Your task to perform on an android device: choose inbox layout in the gmail app Image 0: 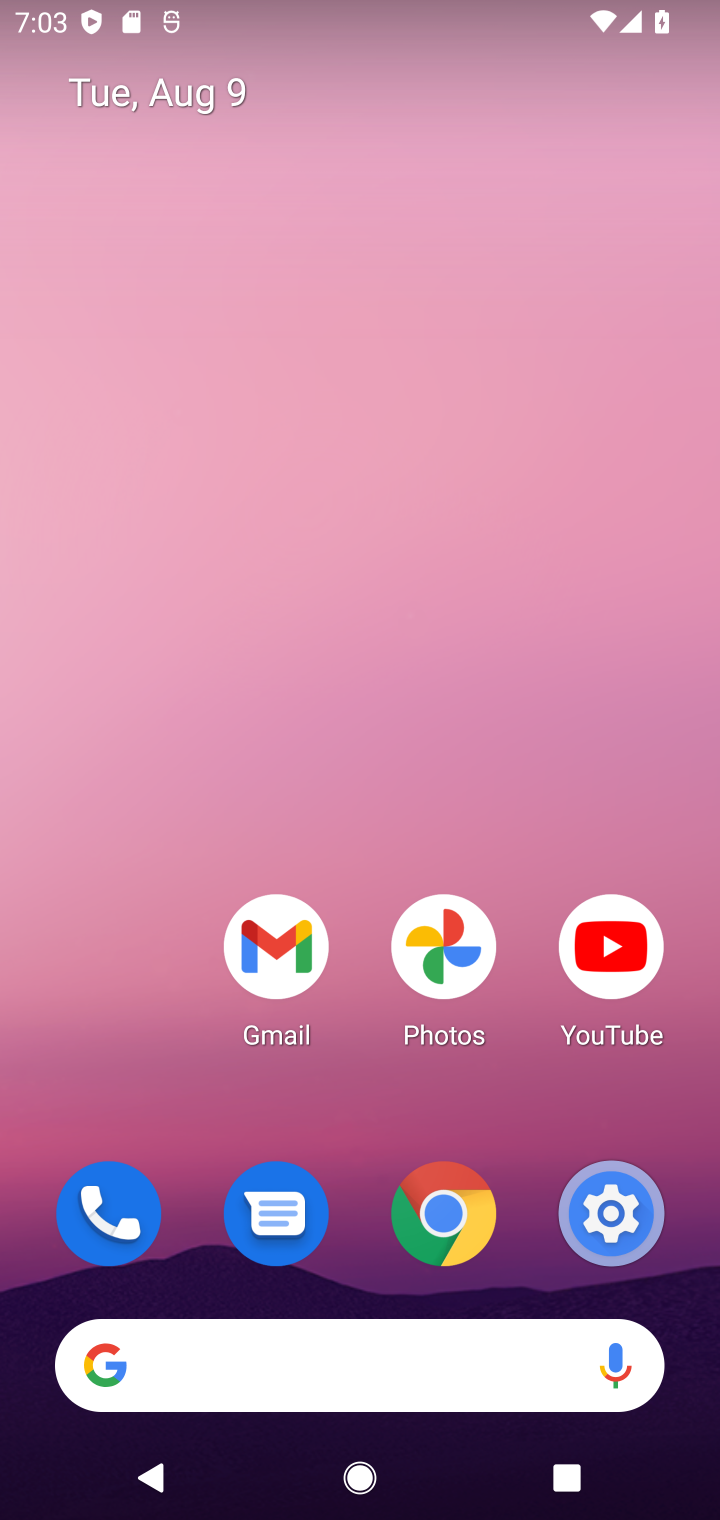
Step 0: drag from (342, 1292) to (376, 218)
Your task to perform on an android device: choose inbox layout in the gmail app Image 1: 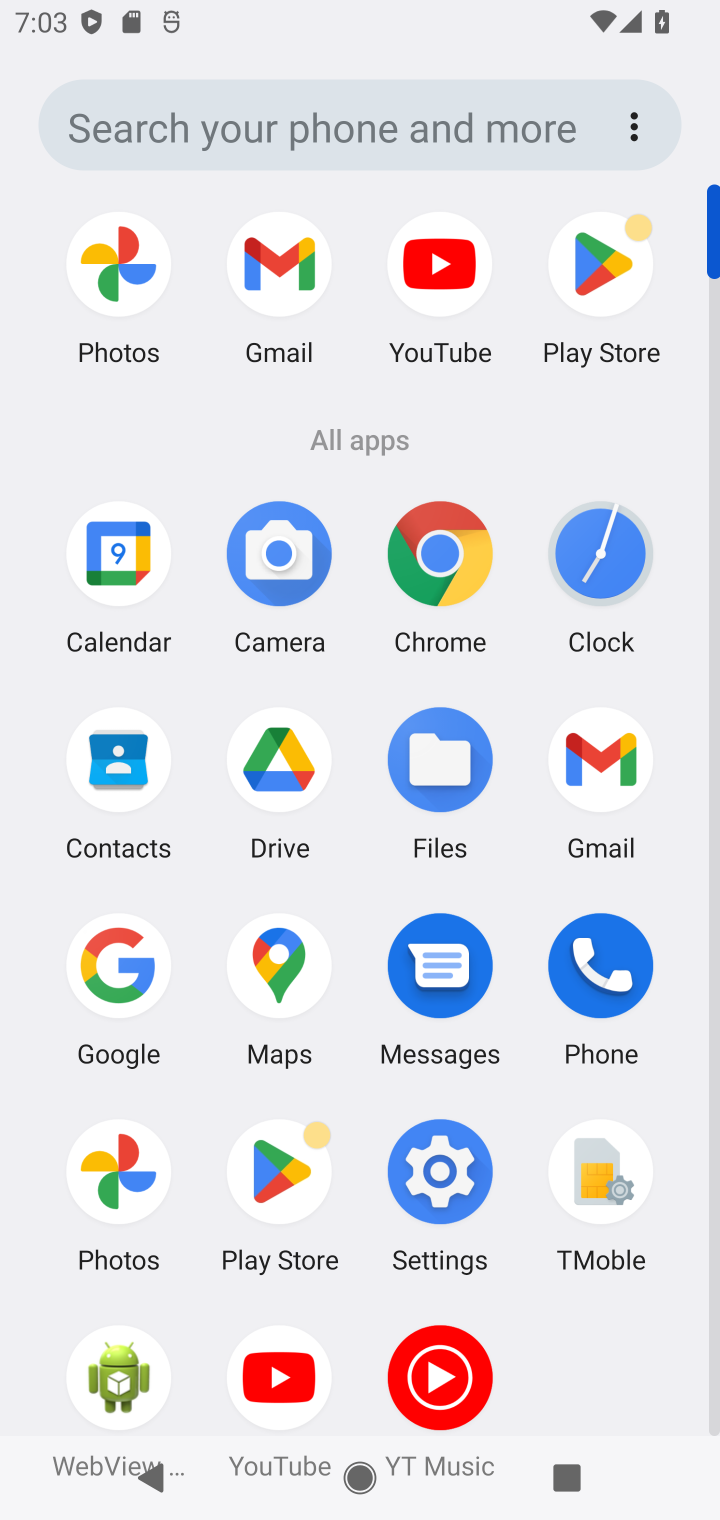
Step 1: click (630, 759)
Your task to perform on an android device: choose inbox layout in the gmail app Image 2: 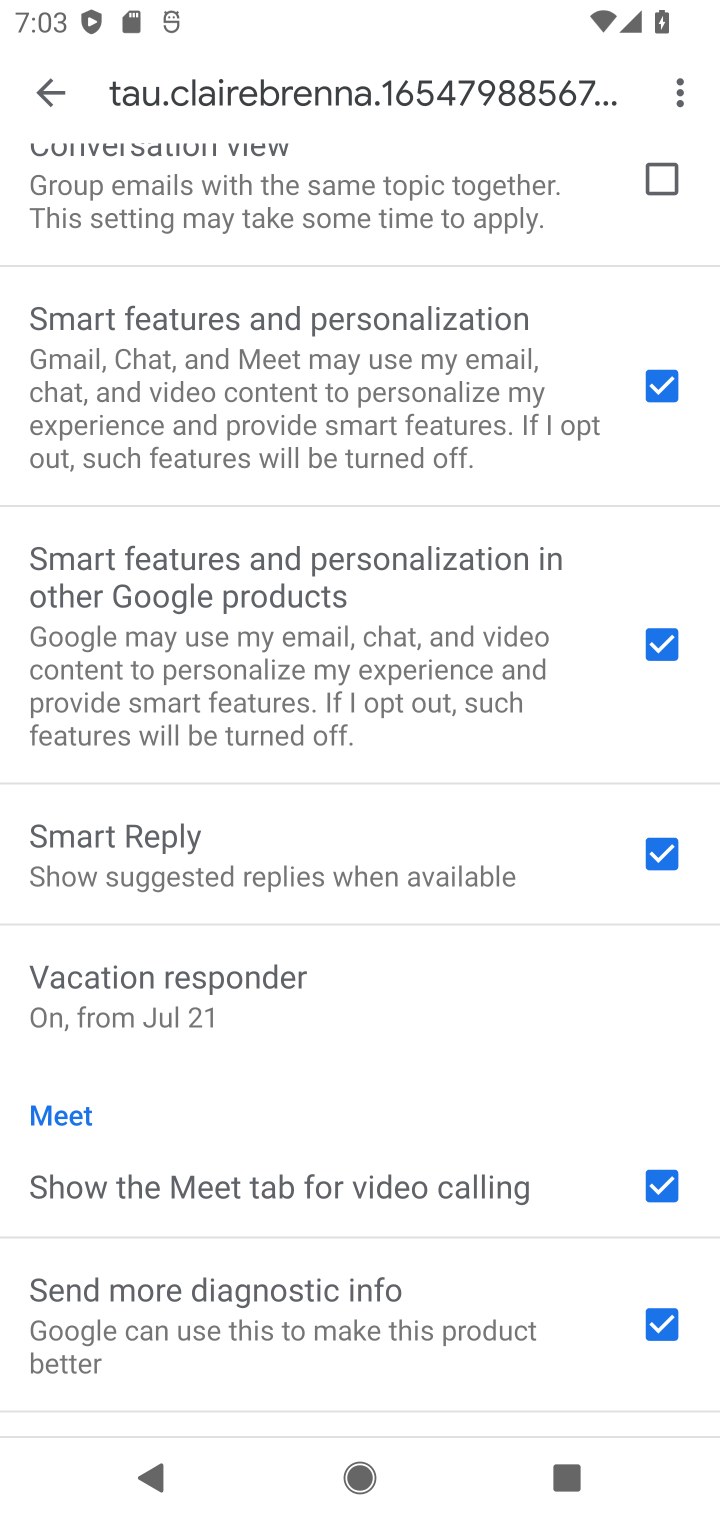
Step 2: click (33, 93)
Your task to perform on an android device: choose inbox layout in the gmail app Image 3: 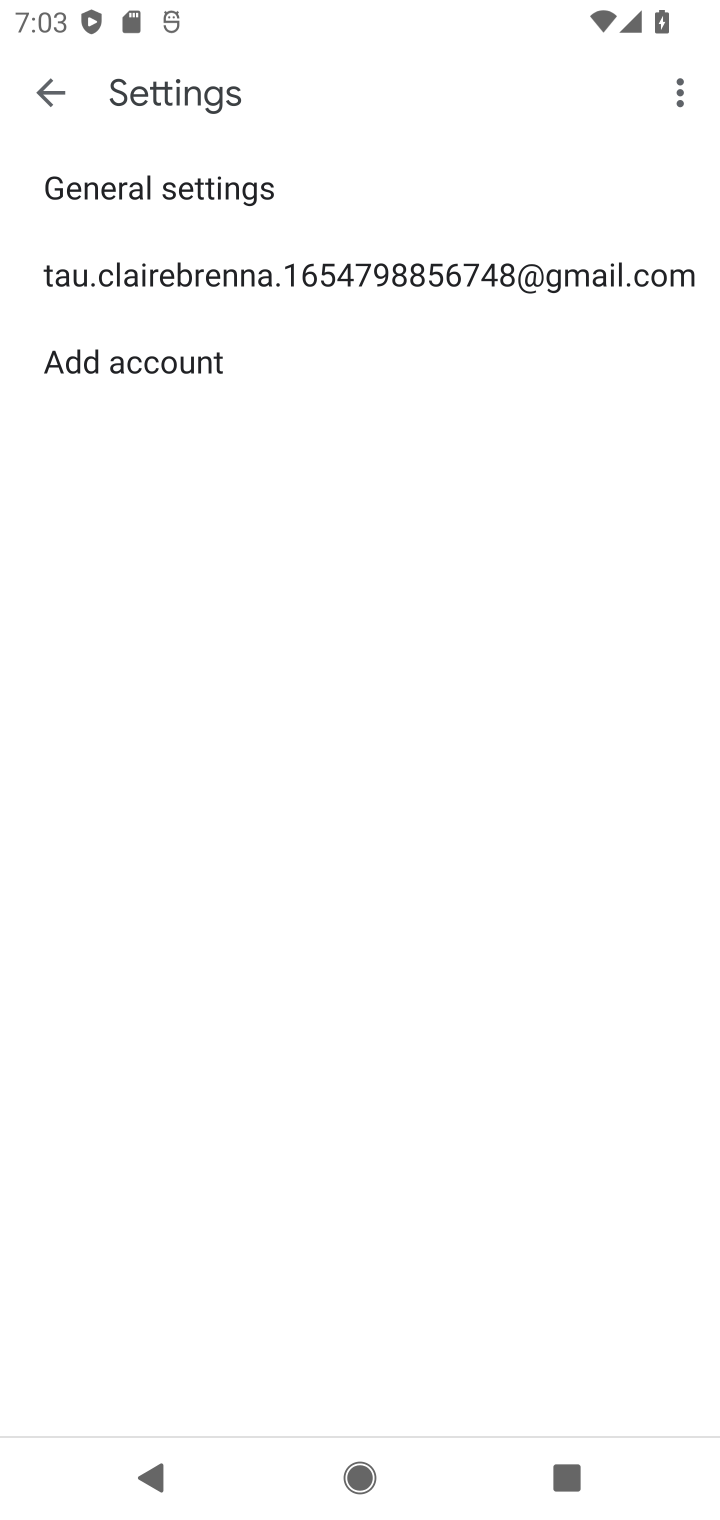
Step 3: click (151, 272)
Your task to perform on an android device: choose inbox layout in the gmail app Image 4: 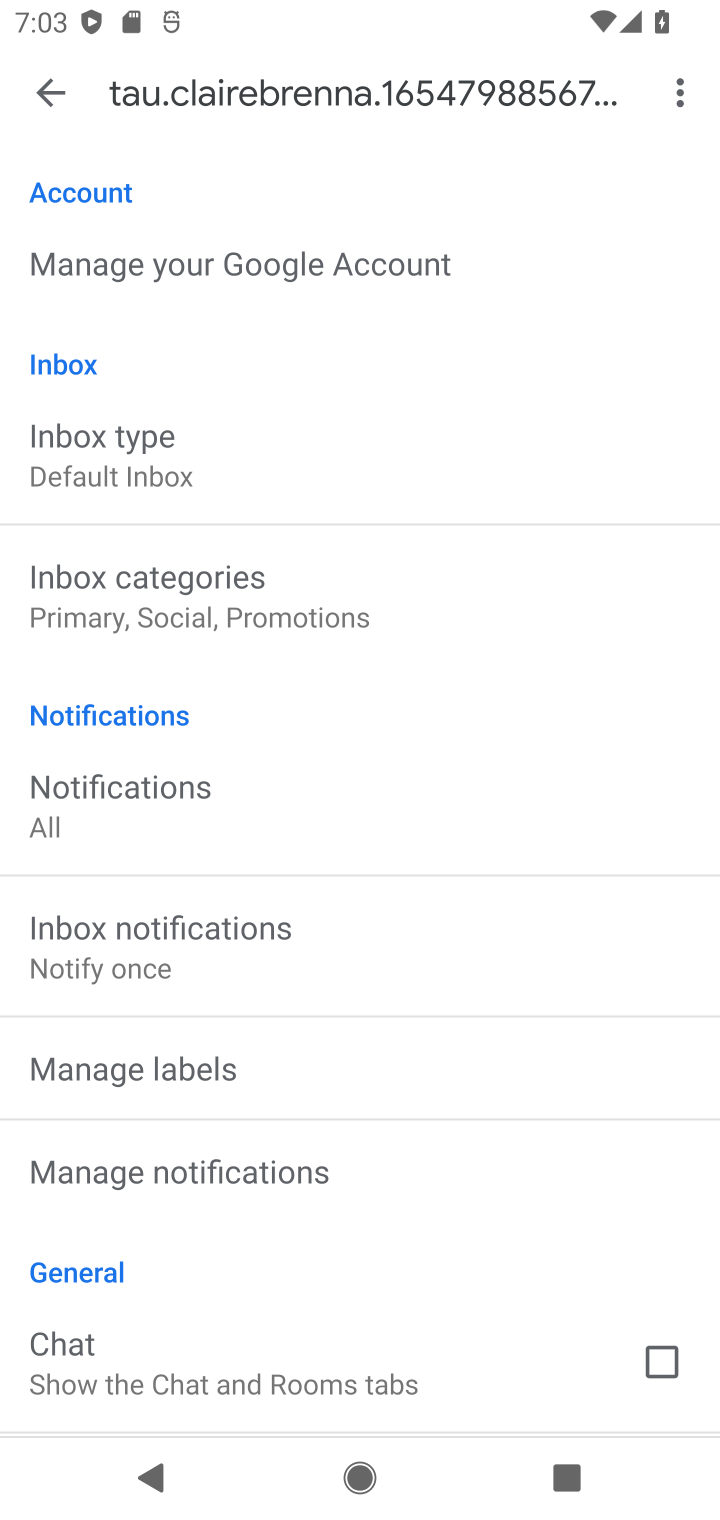
Step 4: click (201, 492)
Your task to perform on an android device: choose inbox layout in the gmail app Image 5: 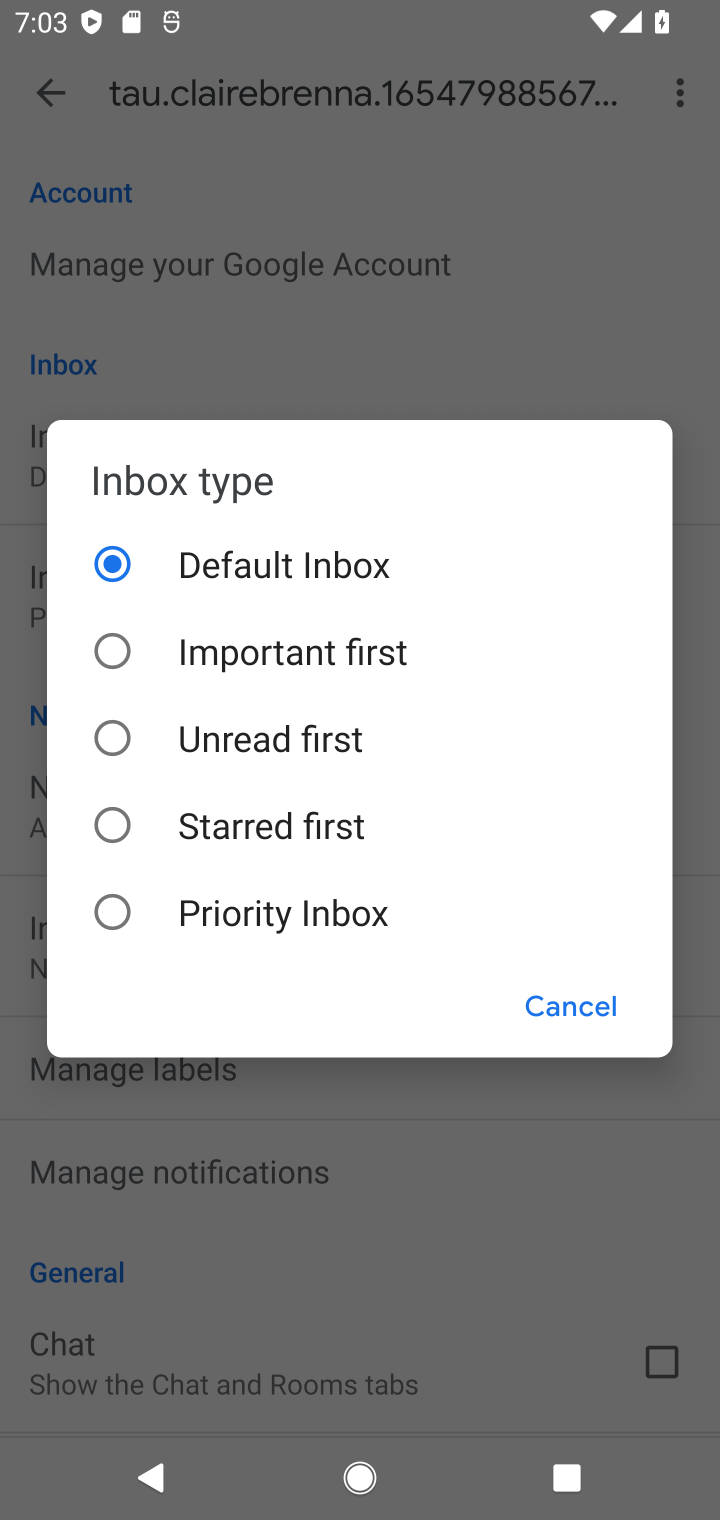
Step 5: click (212, 890)
Your task to perform on an android device: choose inbox layout in the gmail app Image 6: 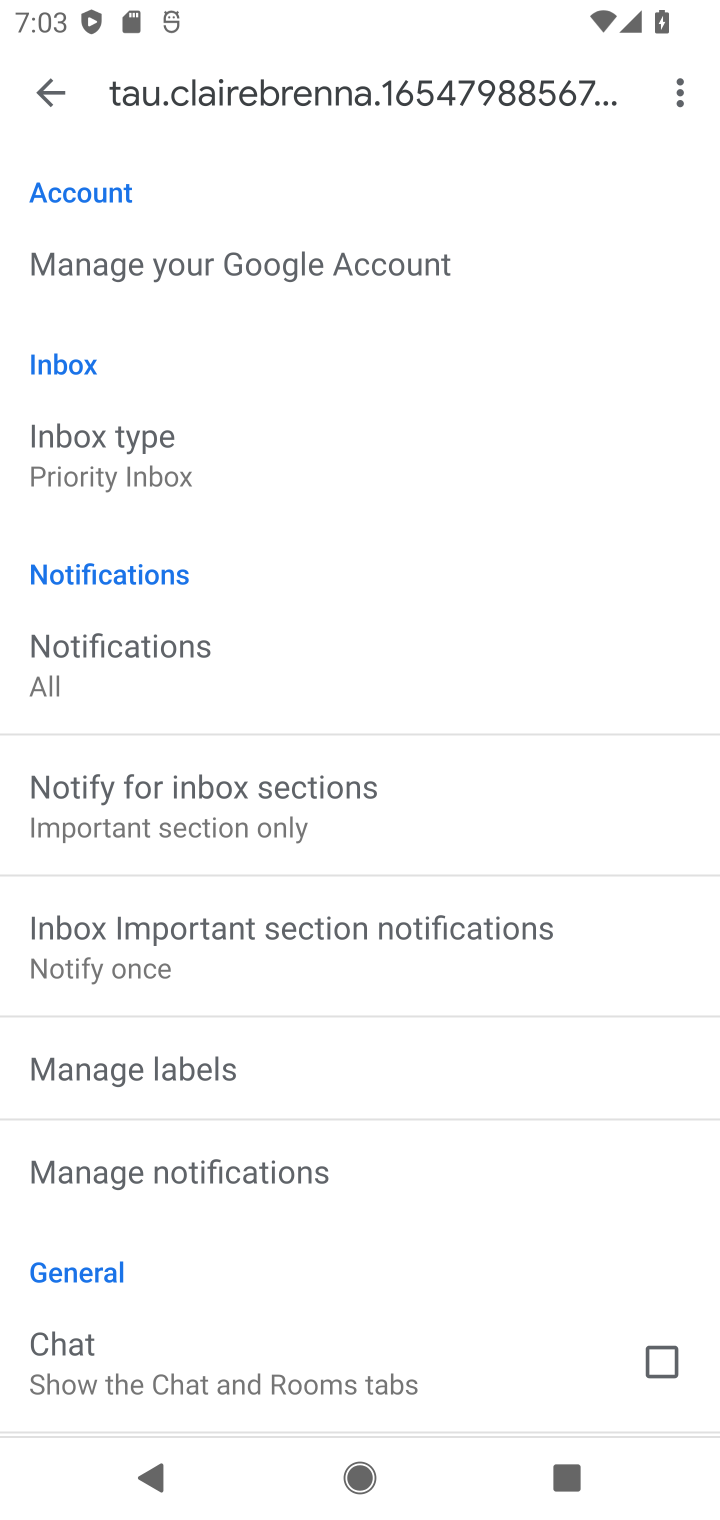
Step 6: click (49, 100)
Your task to perform on an android device: choose inbox layout in the gmail app Image 7: 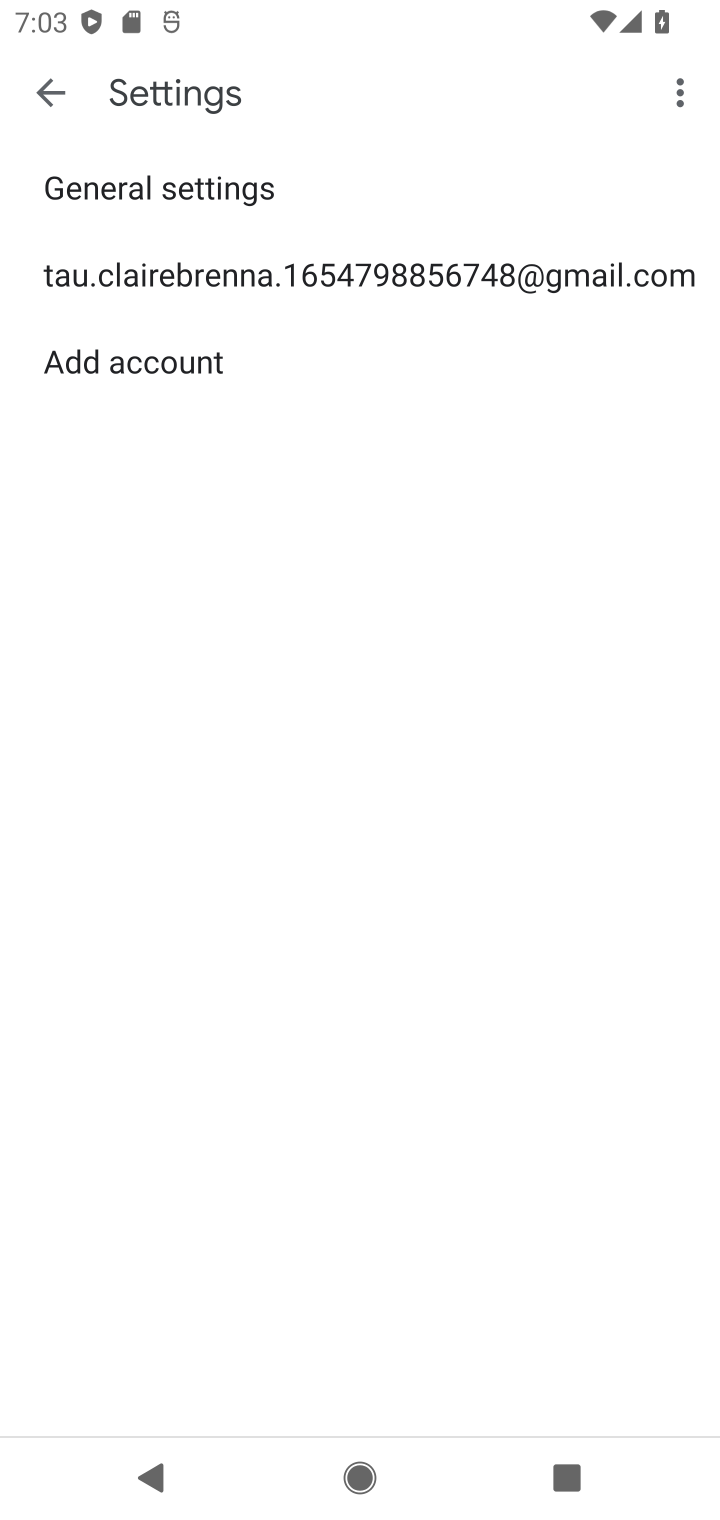
Step 7: click (49, 100)
Your task to perform on an android device: choose inbox layout in the gmail app Image 8: 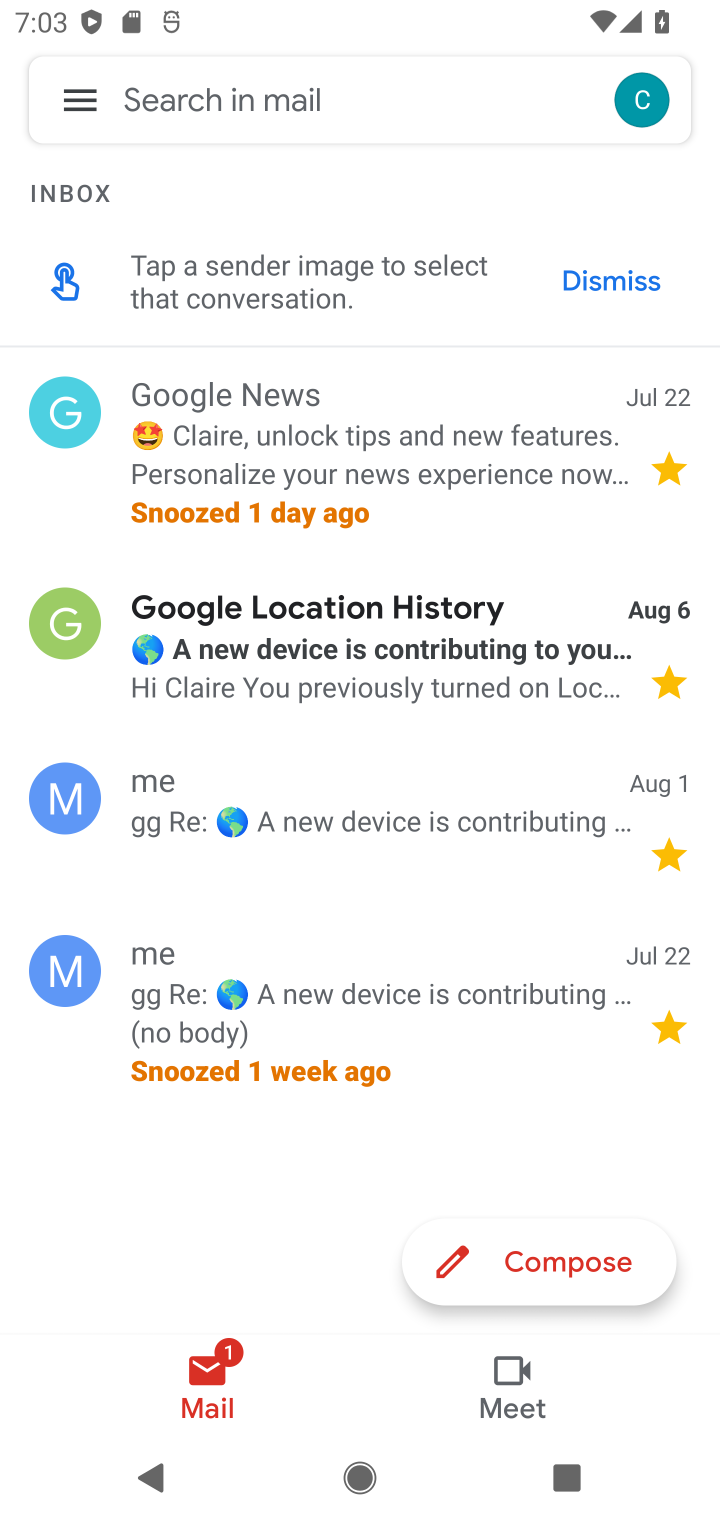
Step 8: task complete